Your task to perform on an android device: toggle airplane mode Image 0: 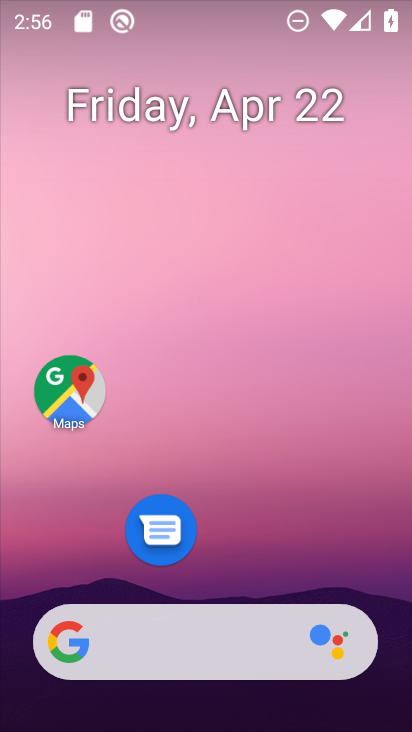
Step 0: drag from (283, 548) to (224, 5)
Your task to perform on an android device: toggle airplane mode Image 1: 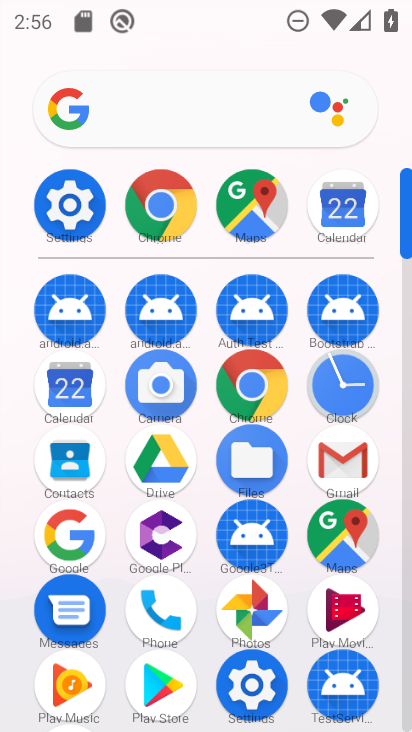
Step 1: click (67, 222)
Your task to perform on an android device: toggle airplane mode Image 2: 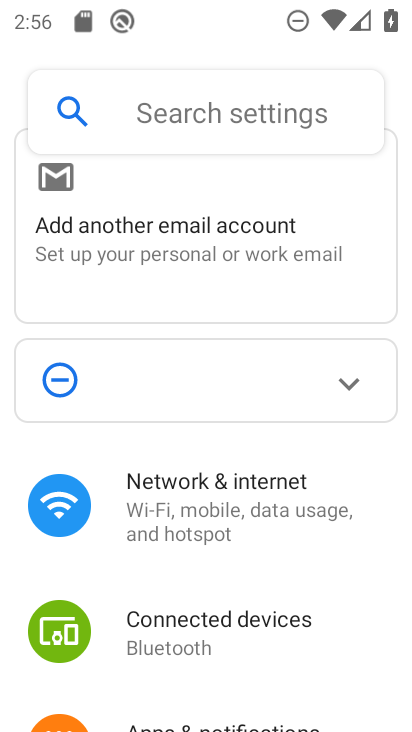
Step 2: click (194, 492)
Your task to perform on an android device: toggle airplane mode Image 3: 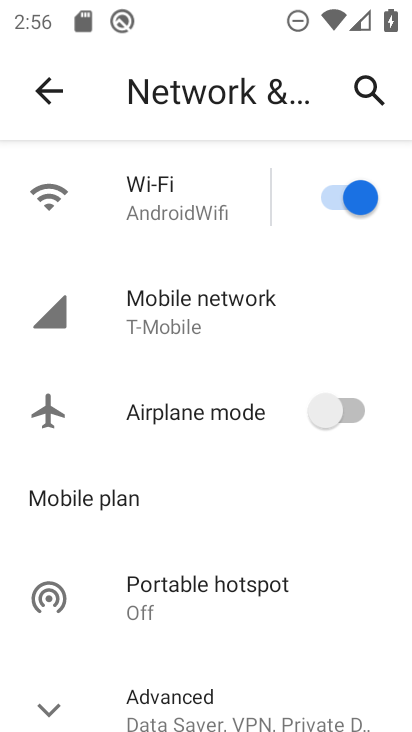
Step 3: click (330, 408)
Your task to perform on an android device: toggle airplane mode Image 4: 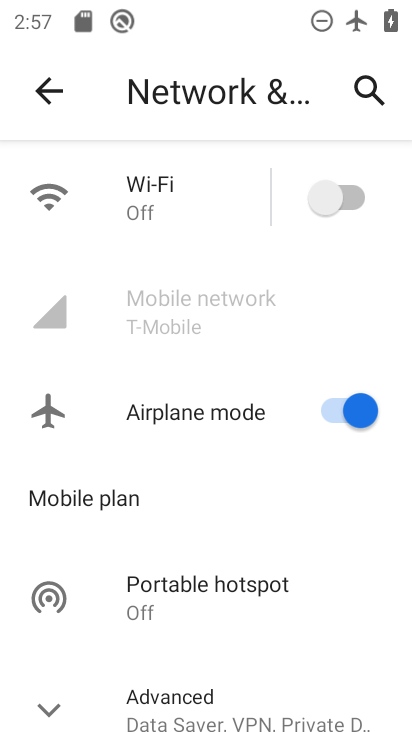
Step 4: task complete